Your task to perform on an android device: turn off priority inbox in the gmail app Image 0: 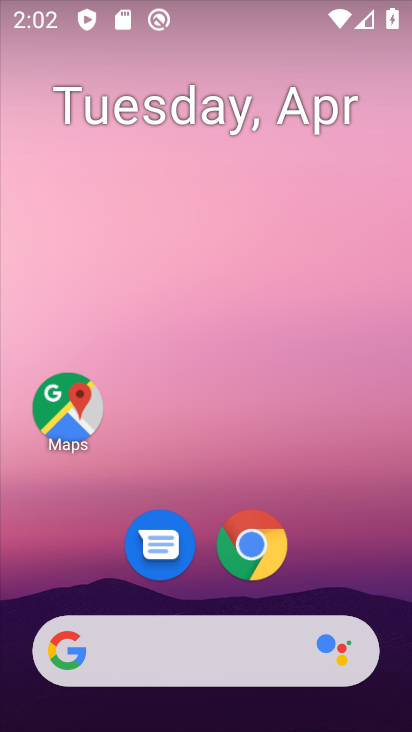
Step 0: drag from (359, 471) to (281, 51)
Your task to perform on an android device: turn off priority inbox in the gmail app Image 1: 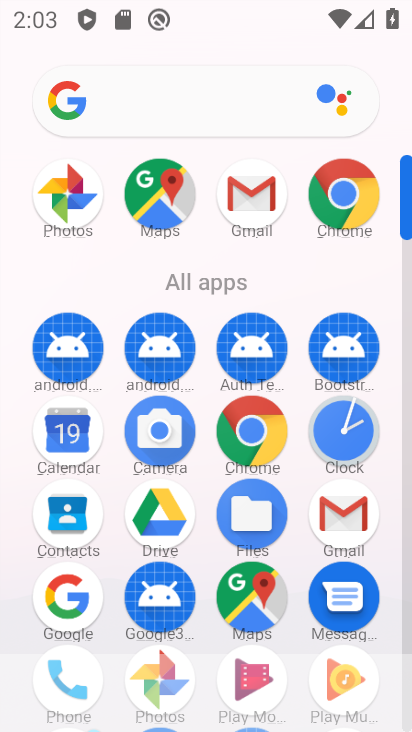
Step 1: click (263, 210)
Your task to perform on an android device: turn off priority inbox in the gmail app Image 2: 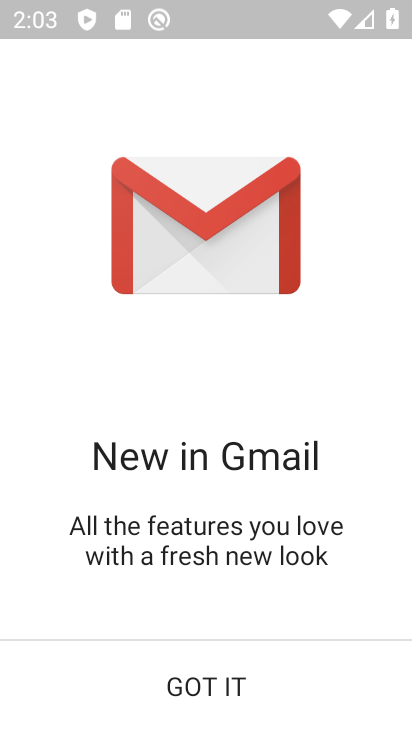
Step 2: click (219, 694)
Your task to perform on an android device: turn off priority inbox in the gmail app Image 3: 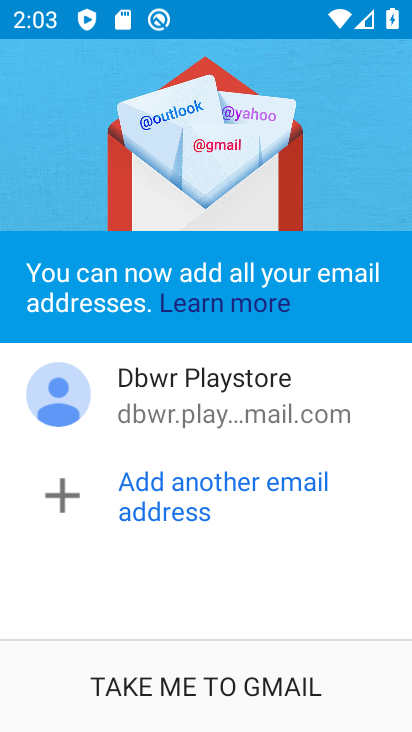
Step 3: click (219, 694)
Your task to perform on an android device: turn off priority inbox in the gmail app Image 4: 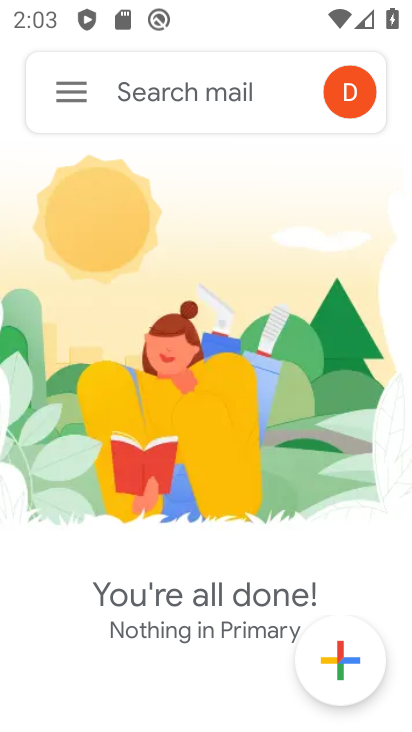
Step 4: click (75, 100)
Your task to perform on an android device: turn off priority inbox in the gmail app Image 5: 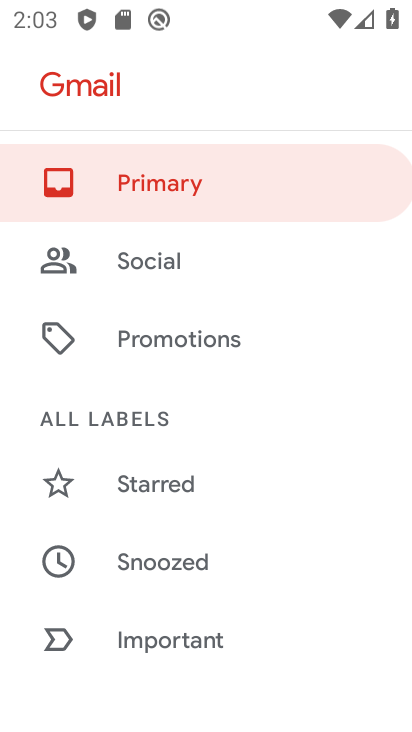
Step 5: drag from (338, 640) to (325, 223)
Your task to perform on an android device: turn off priority inbox in the gmail app Image 6: 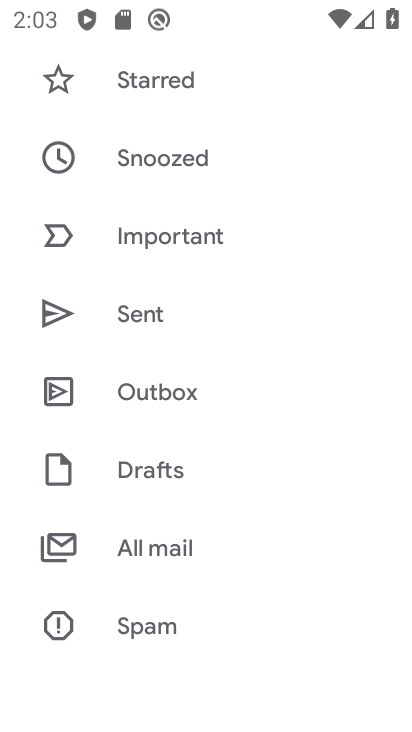
Step 6: drag from (367, 581) to (301, 125)
Your task to perform on an android device: turn off priority inbox in the gmail app Image 7: 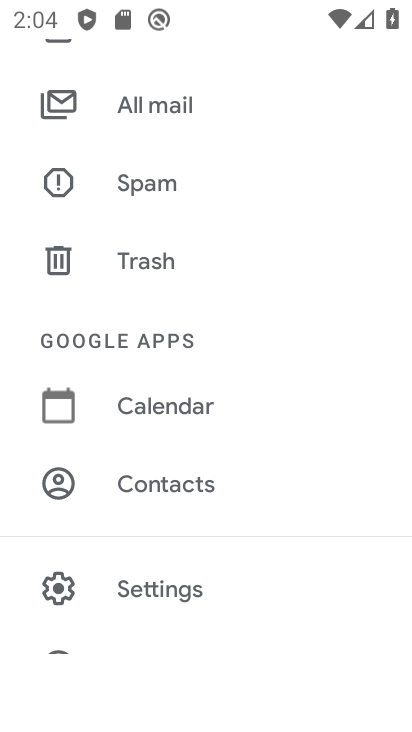
Step 7: click (308, 599)
Your task to perform on an android device: turn off priority inbox in the gmail app Image 8: 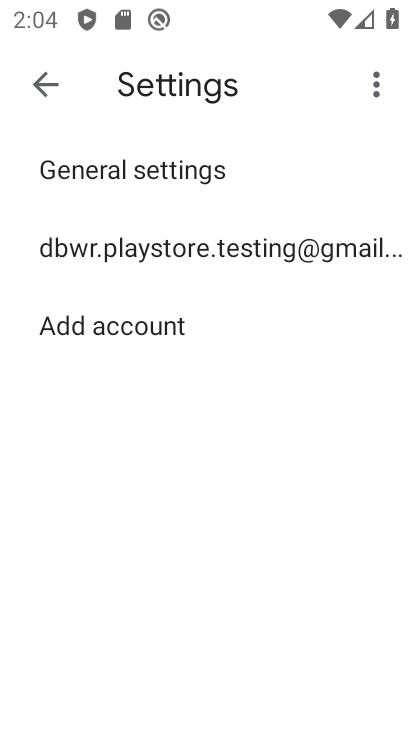
Step 8: click (293, 249)
Your task to perform on an android device: turn off priority inbox in the gmail app Image 9: 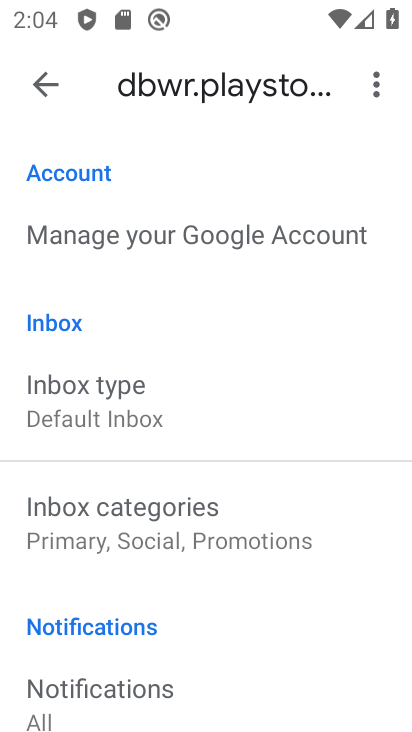
Step 9: click (282, 428)
Your task to perform on an android device: turn off priority inbox in the gmail app Image 10: 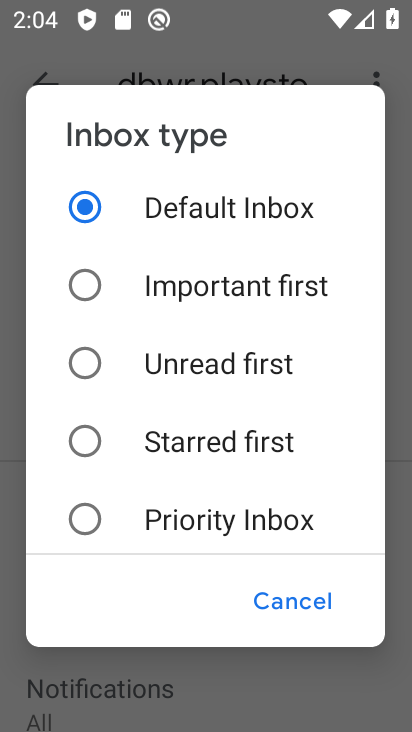
Step 10: task complete